Your task to perform on an android device: Open network settings Image 0: 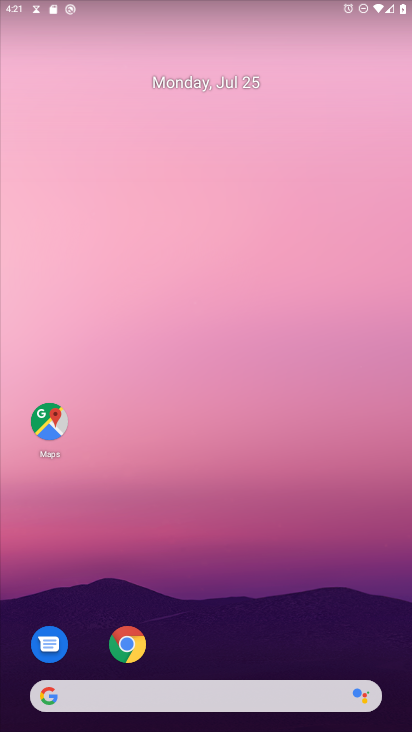
Step 0: press home button
Your task to perform on an android device: Open network settings Image 1: 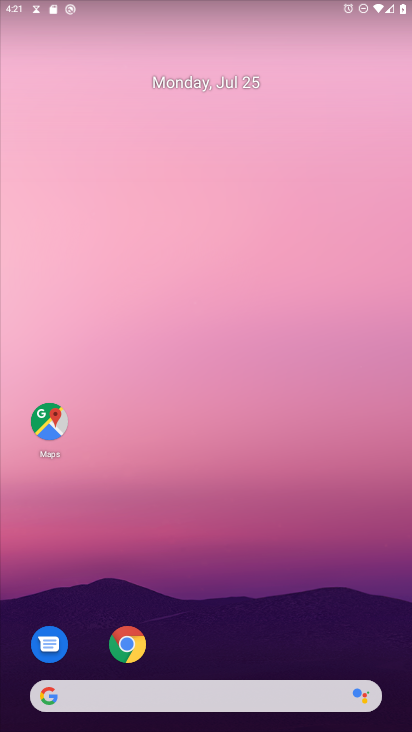
Step 1: drag from (269, 624) to (158, 32)
Your task to perform on an android device: Open network settings Image 2: 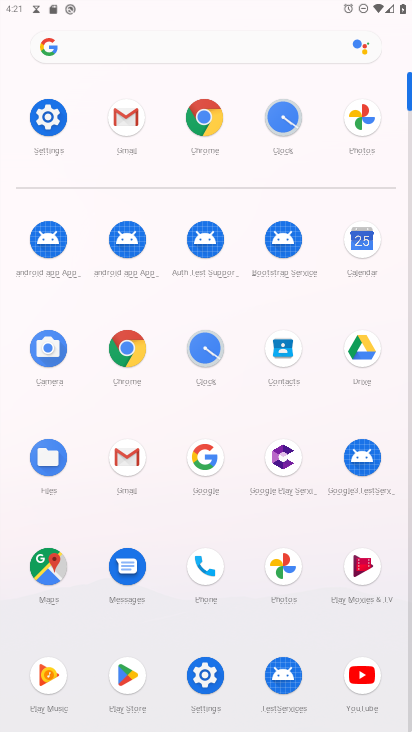
Step 2: click (39, 109)
Your task to perform on an android device: Open network settings Image 3: 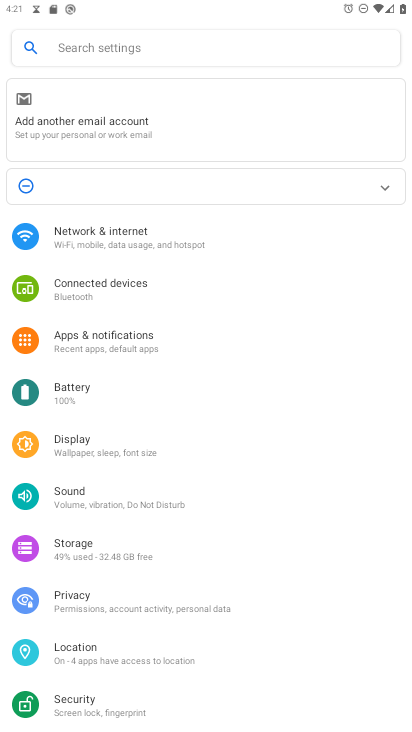
Step 3: click (65, 235)
Your task to perform on an android device: Open network settings Image 4: 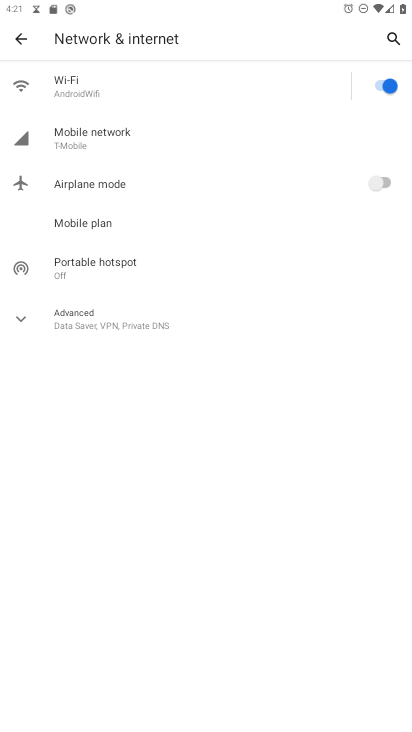
Step 4: task complete